Your task to perform on an android device: change the clock display to show seconds Image 0: 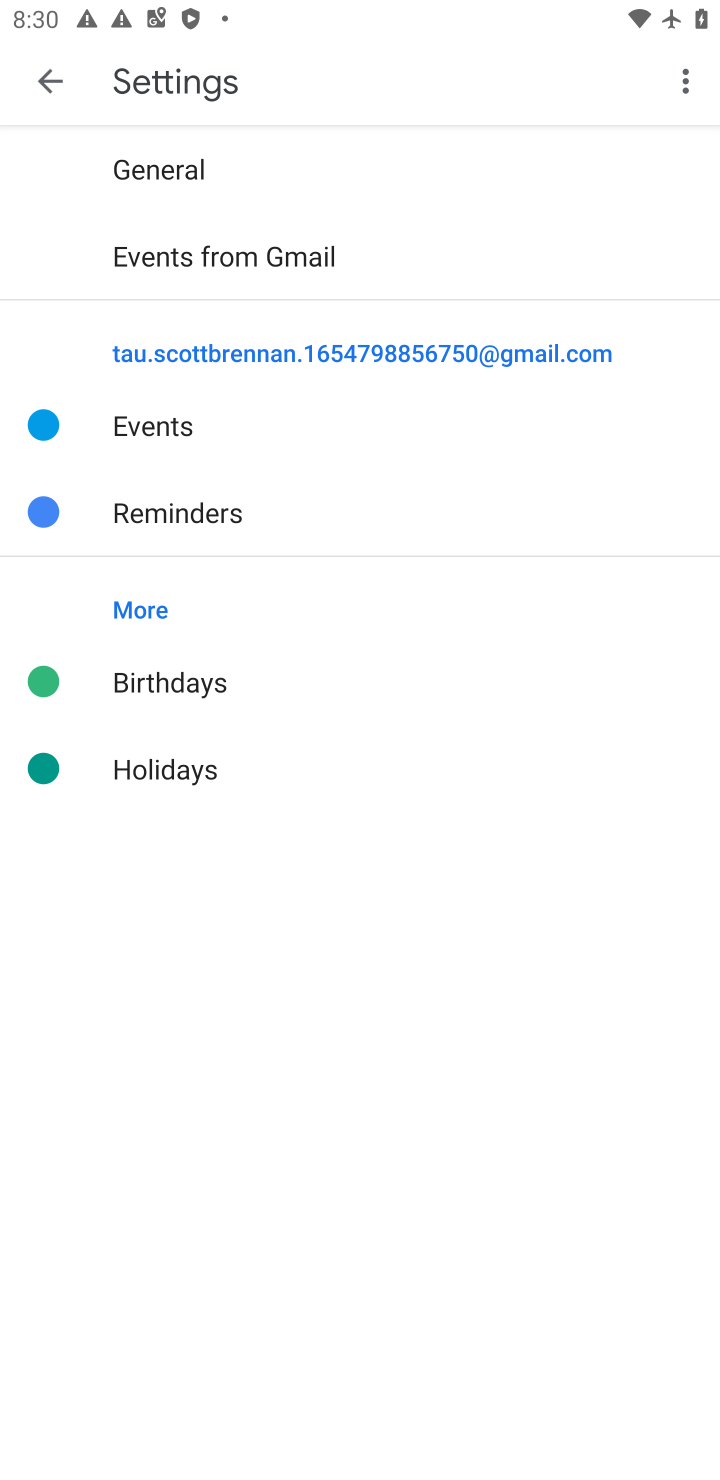
Step 0: press home button
Your task to perform on an android device: change the clock display to show seconds Image 1: 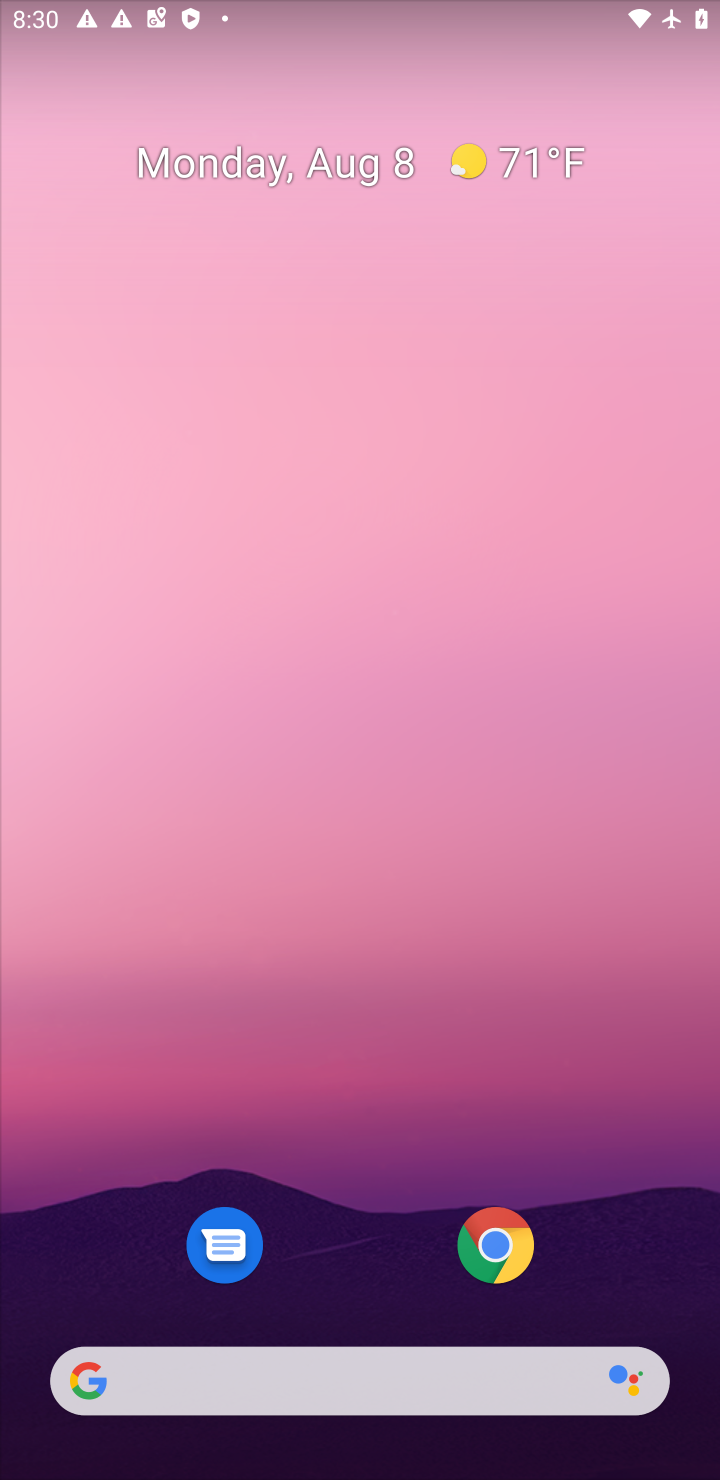
Step 1: drag from (325, 485) to (328, 251)
Your task to perform on an android device: change the clock display to show seconds Image 2: 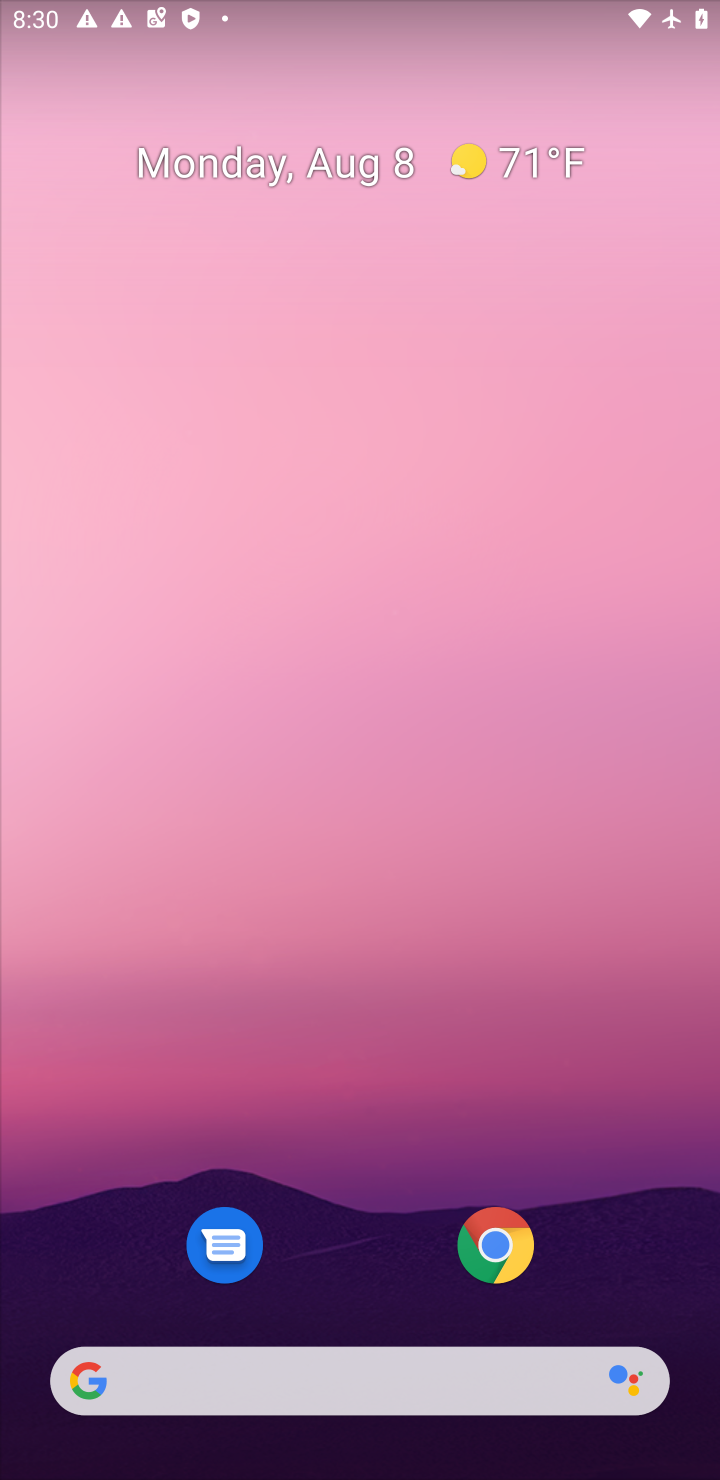
Step 2: drag from (349, 810) to (375, 26)
Your task to perform on an android device: change the clock display to show seconds Image 3: 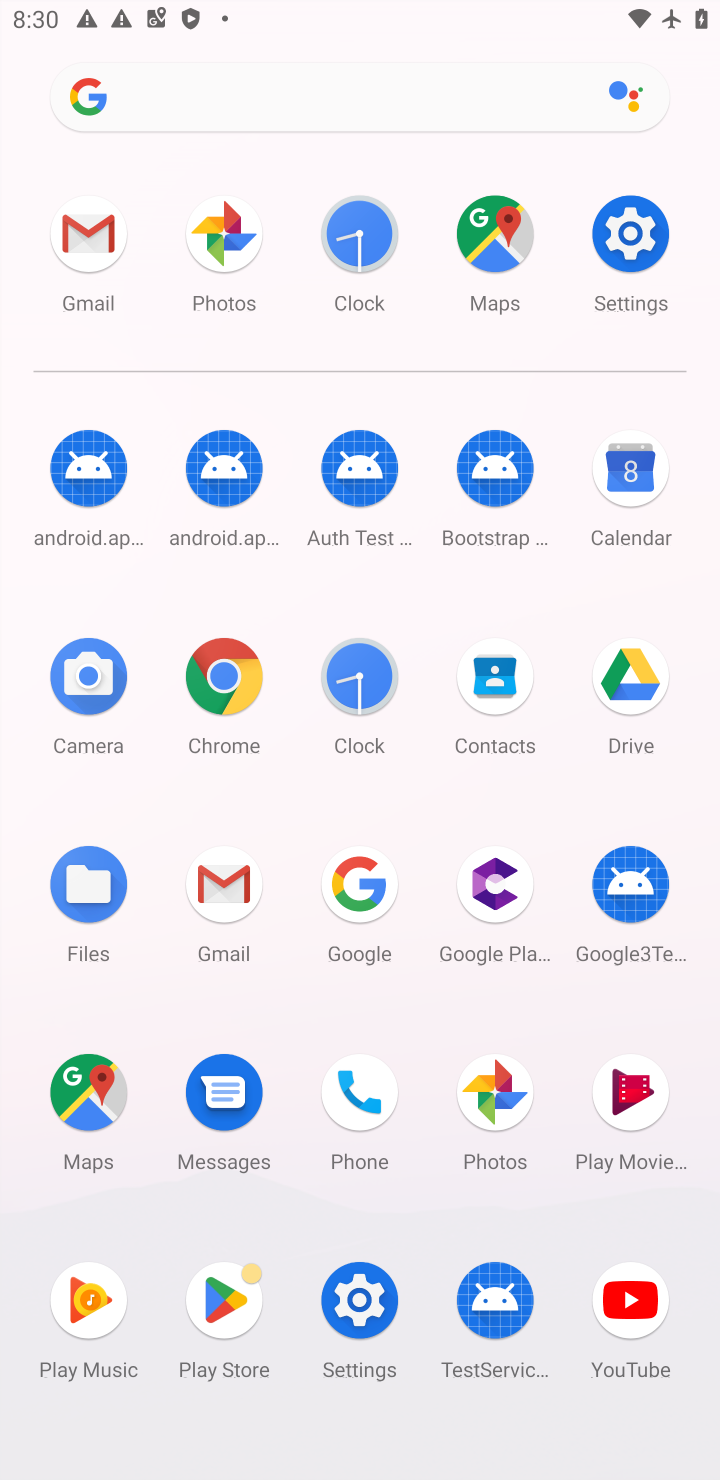
Step 3: click (368, 286)
Your task to perform on an android device: change the clock display to show seconds Image 4: 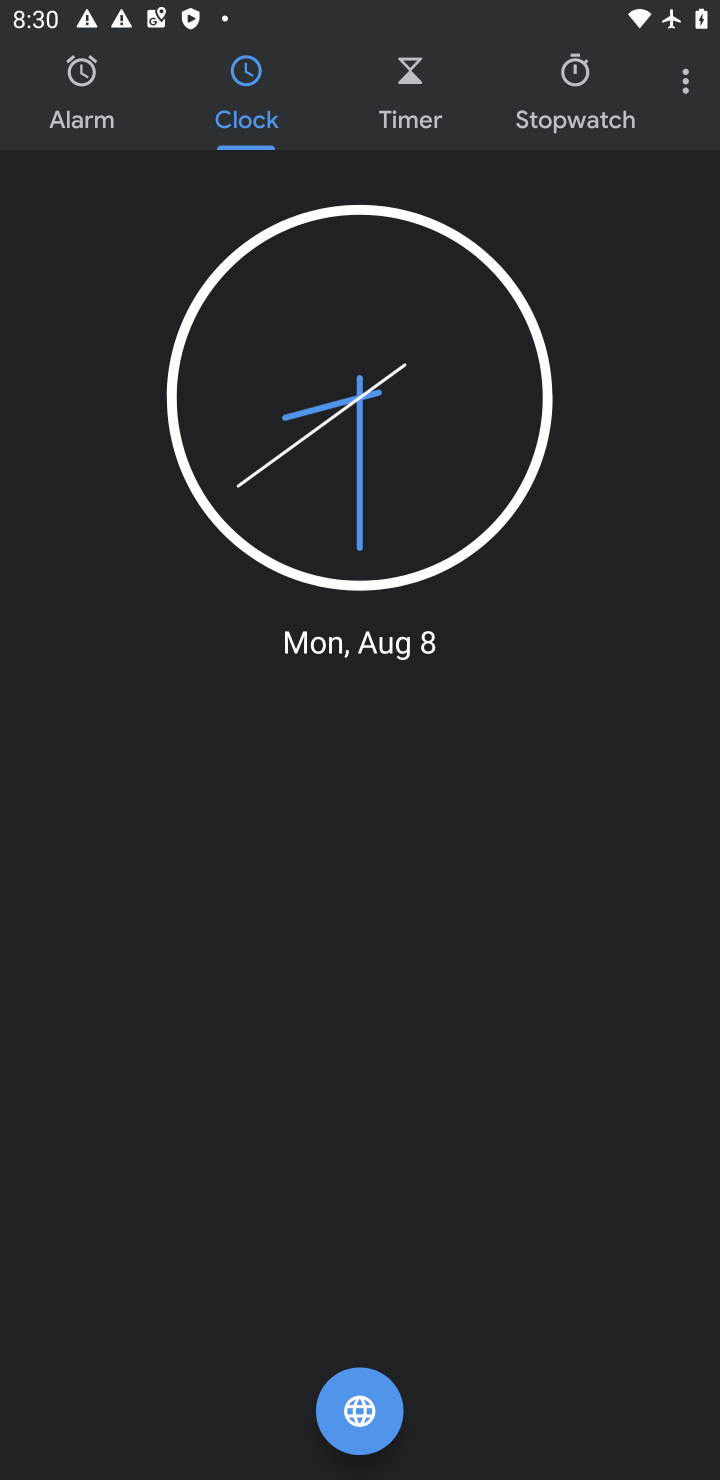
Step 4: click (676, 78)
Your task to perform on an android device: change the clock display to show seconds Image 5: 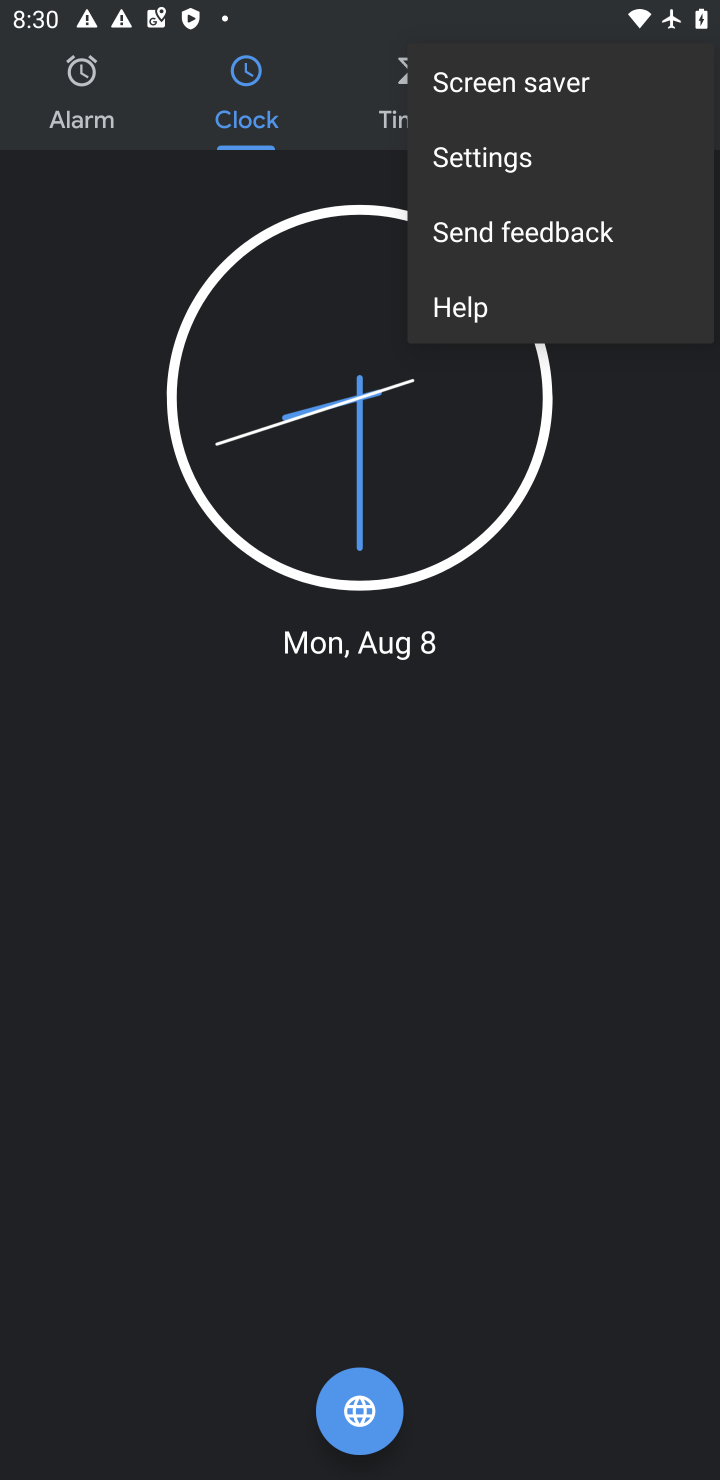
Step 5: click (481, 159)
Your task to perform on an android device: change the clock display to show seconds Image 6: 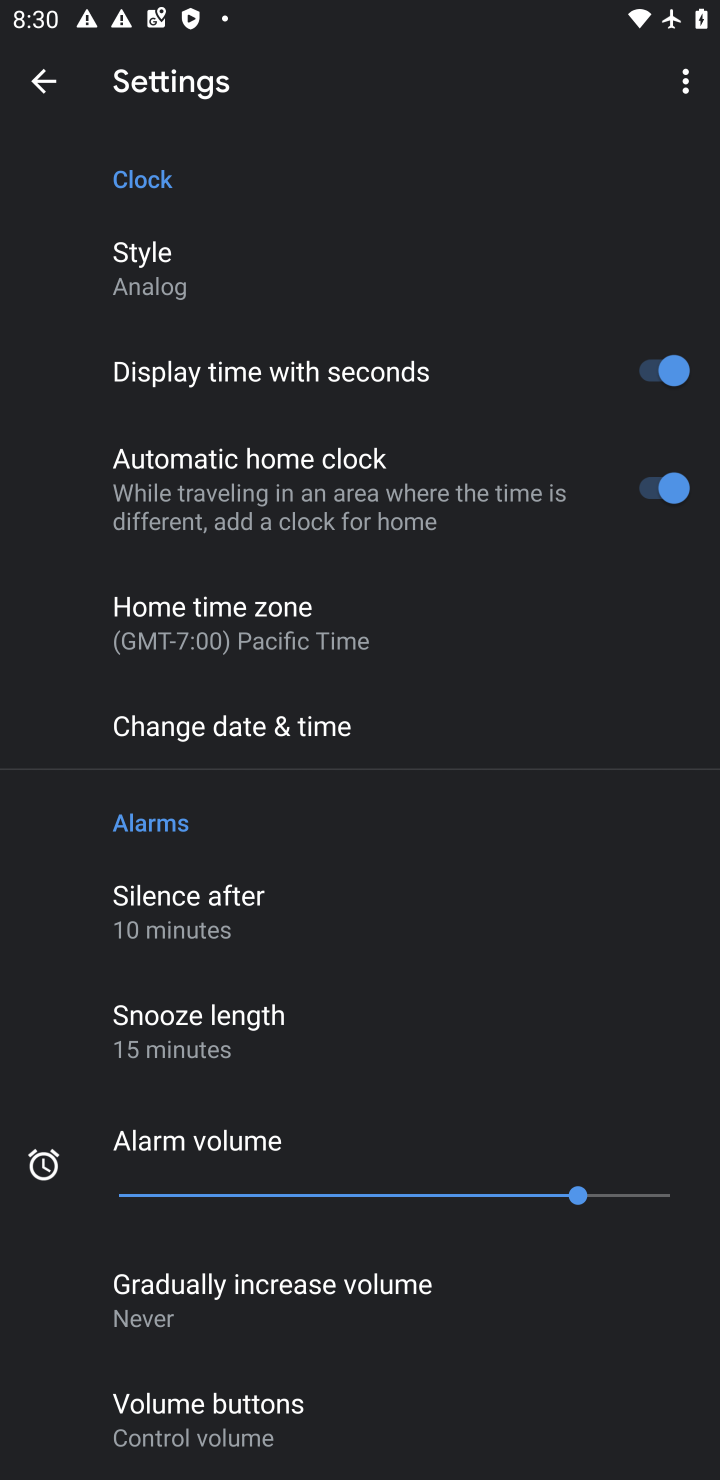
Step 6: click (183, 281)
Your task to perform on an android device: change the clock display to show seconds Image 7: 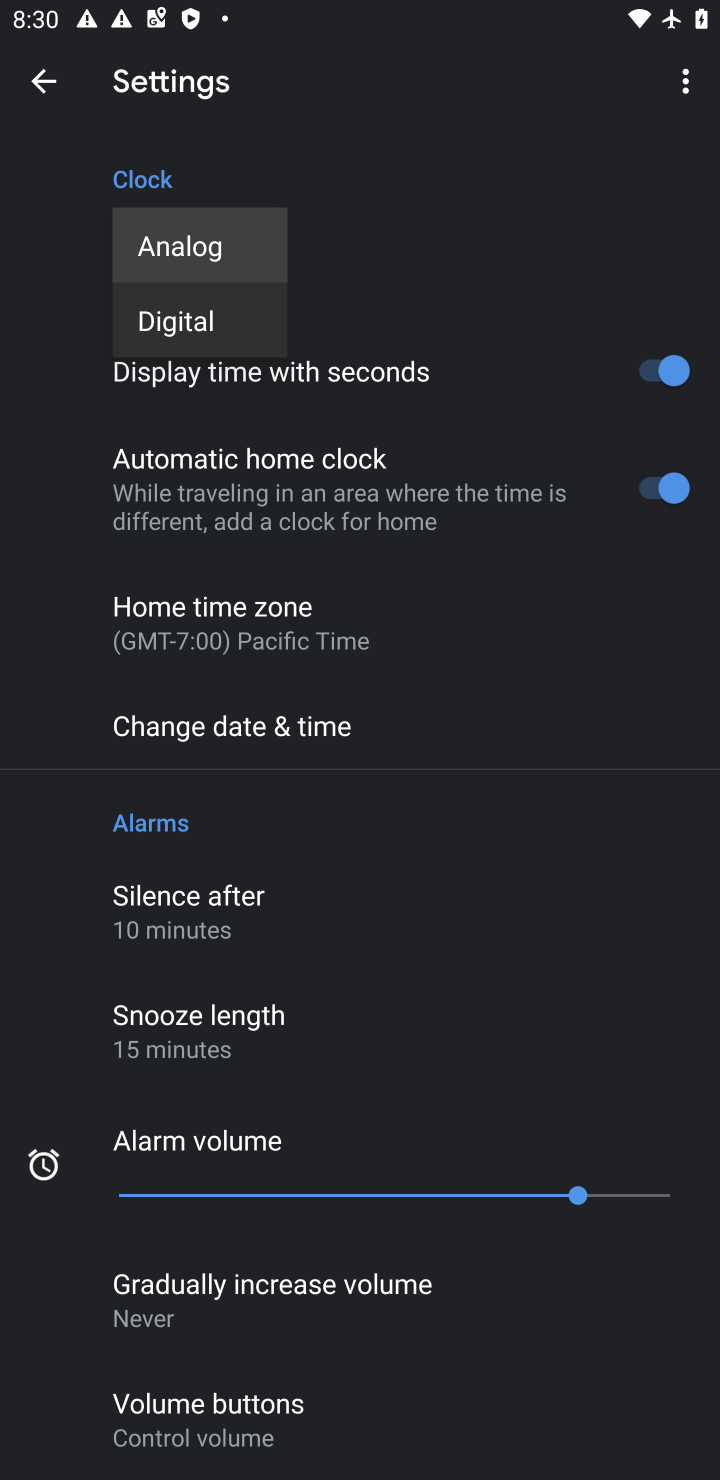
Step 7: click (211, 326)
Your task to perform on an android device: change the clock display to show seconds Image 8: 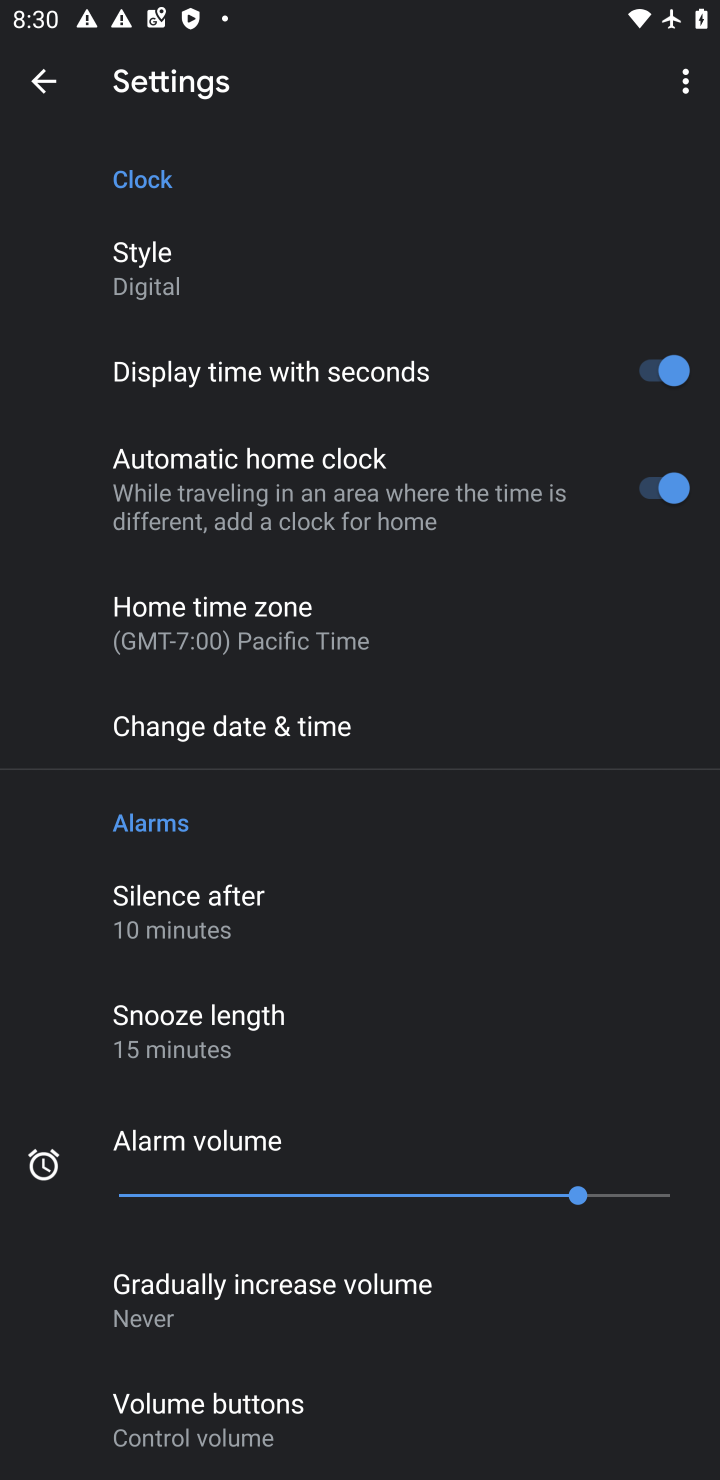
Step 8: task complete